Your task to perform on an android device: Open Youtube and go to the subscriptions tab Image 0: 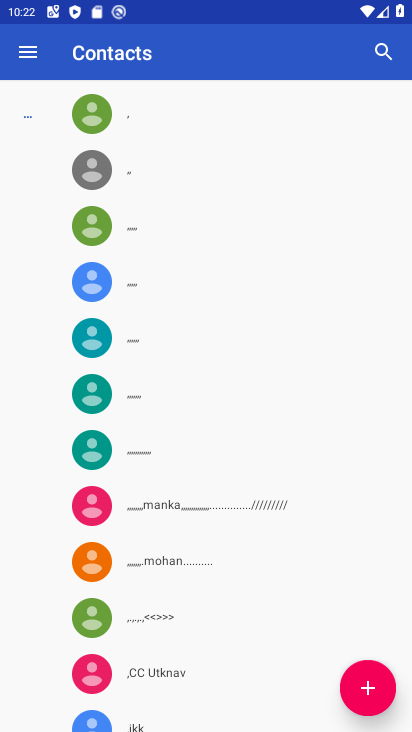
Step 0: press back button
Your task to perform on an android device: Open Youtube and go to the subscriptions tab Image 1: 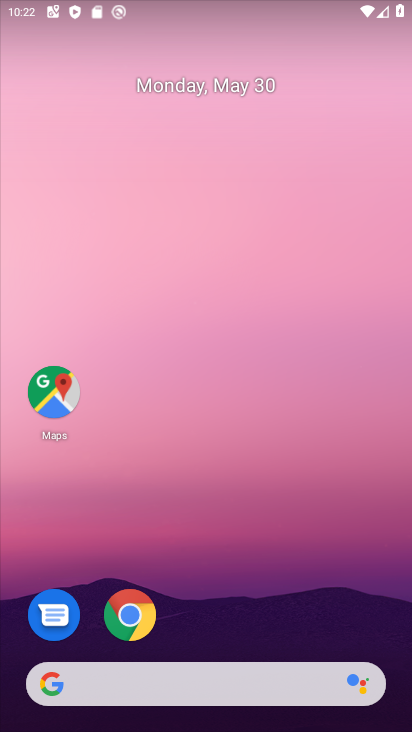
Step 1: drag from (307, 536) to (171, 0)
Your task to perform on an android device: Open Youtube and go to the subscriptions tab Image 2: 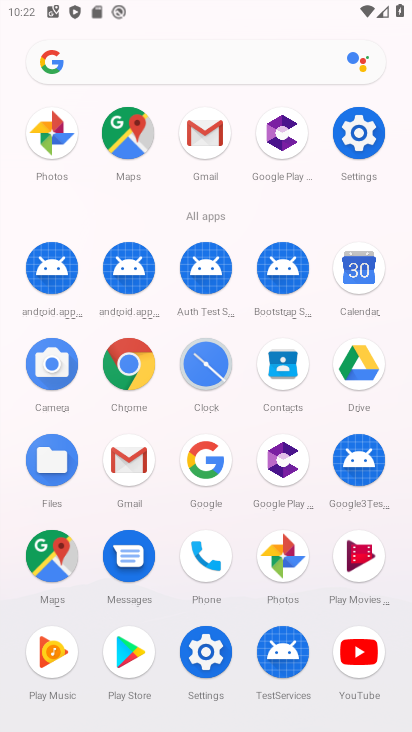
Step 2: drag from (9, 577) to (8, 254)
Your task to perform on an android device: Open Youtube and go to the subscriptions tab Image 3: 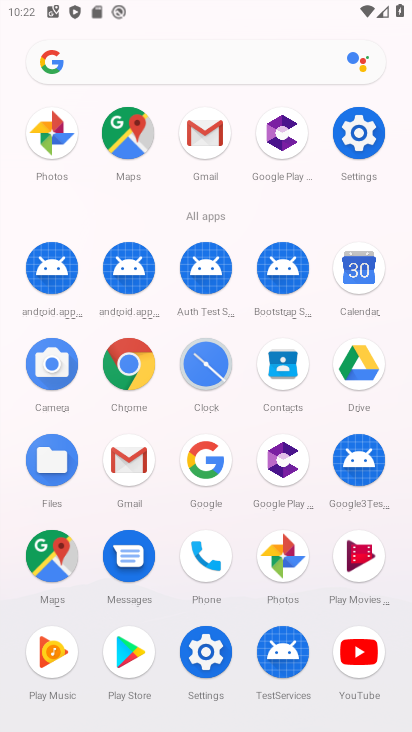
Step 3: click (356, 653)
Your task to perform on an android device: Open Youtube and go to the subscriptions tab Image 4: 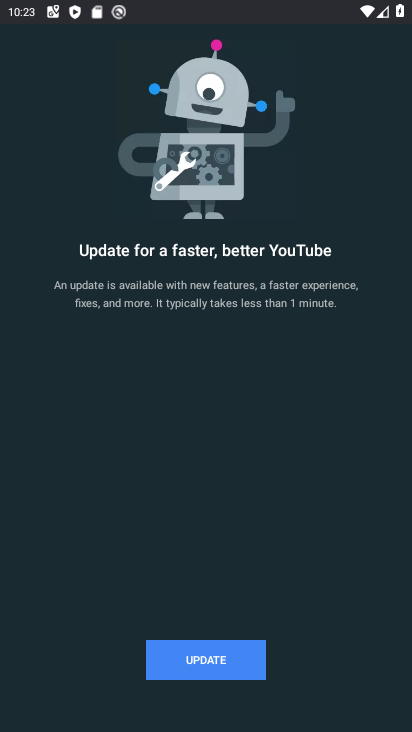
Step 4: click (204, 657)
Your task to perform on an android device: Open Youtube and go to the subscriptions tab Image 5: 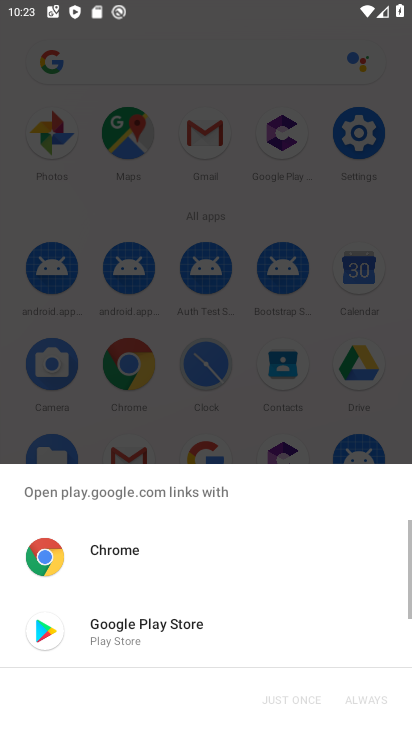
Step 5: click (187, 608)
Your task to perform on an android device: Open Youtube and go to the subscriptions tab Image 6: 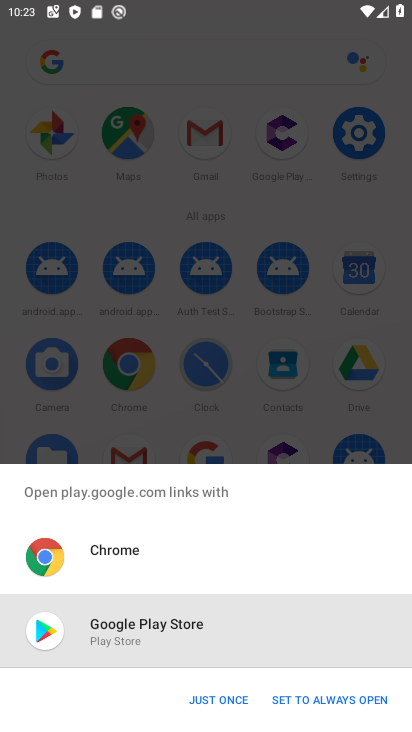
Step 6: click (191, 700)
Your task to perform on an android device: Open Youtube and go to the subscriptions tab Image 7: 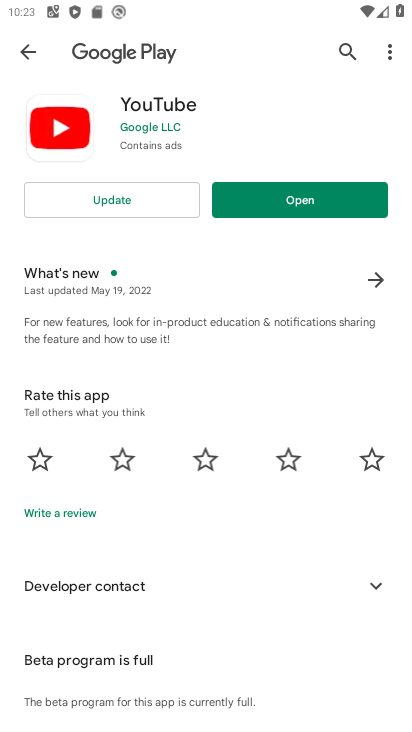
Step 7: click (126, 188)
Your task to perform on an android device: Open Youtube and go to the subscriptions tab Image 8: 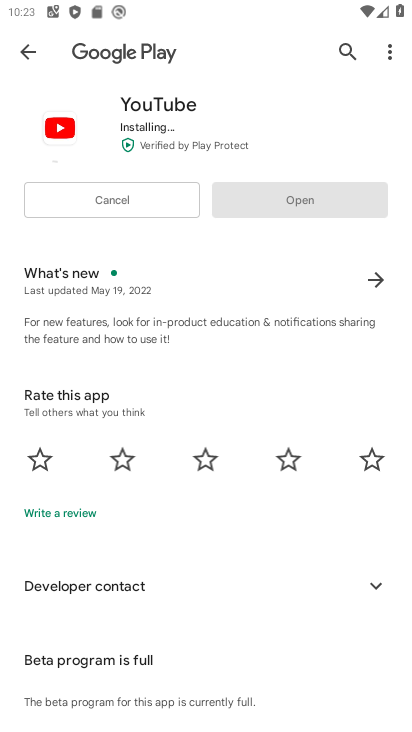
Step 8: click (275, 204)
Your task to perform on an android device: Open Youtube and go to the subscriptions tab Image 9: 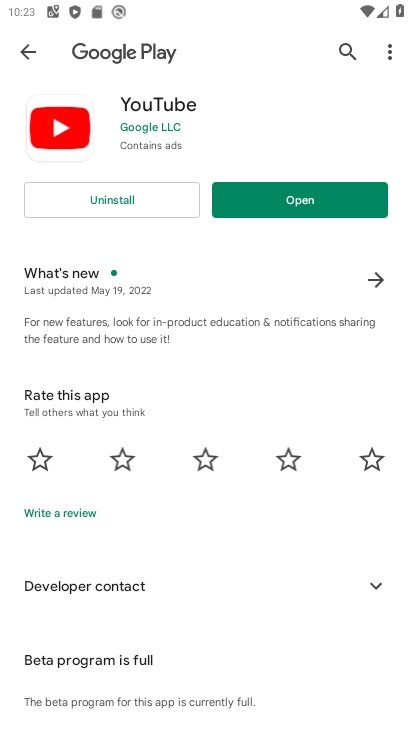
Step 9: click (314, 199)
Your task to perform on an android device: Open Youtube and go to the subscriptions tab Image 10: 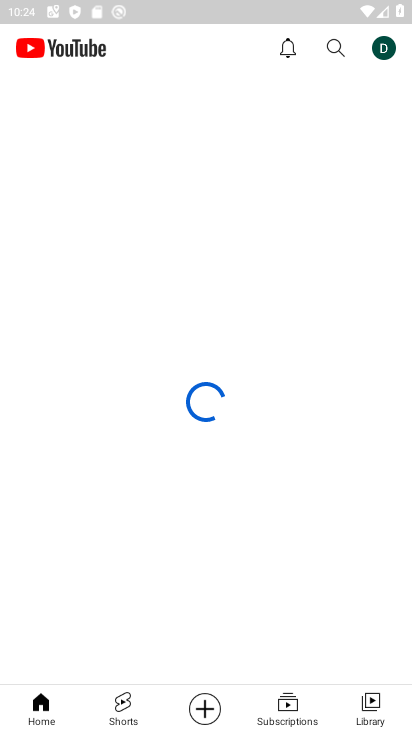
Step 10: click (273, 708)
Your task to perform on an android device: Open Youtube and go to the subscriptions tab Image 11: 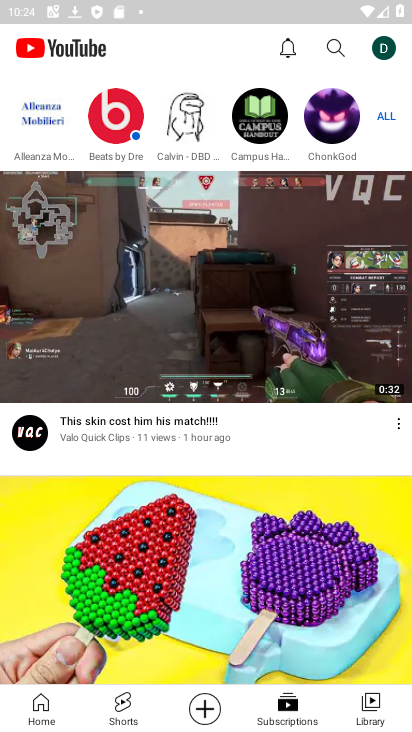
Step 11: task complete